Your task to perform on an android device: Show me popular games on the Play Store Image 0: 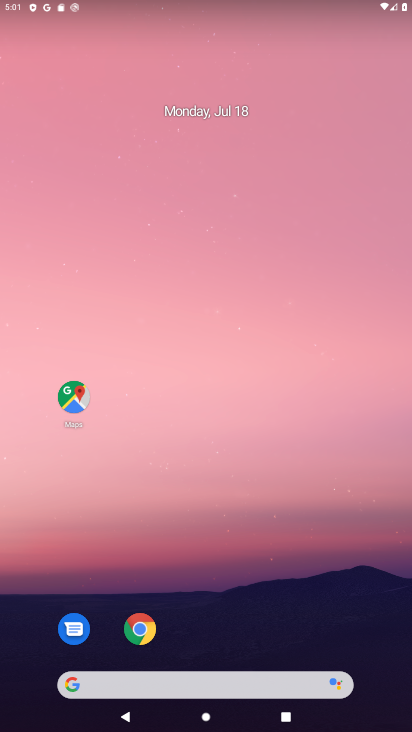
Step 0: drag from (341, 645) to (324, 38)
Your task to perform on an android device: Show me popular games on the Play Store Image 1: 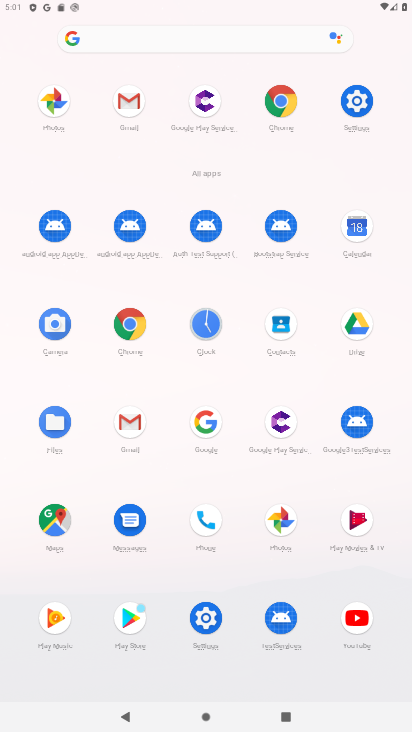
Step 1: click (130, 621)
Your task to perform on an android device: Show me popular games on the Play Store Image 2: 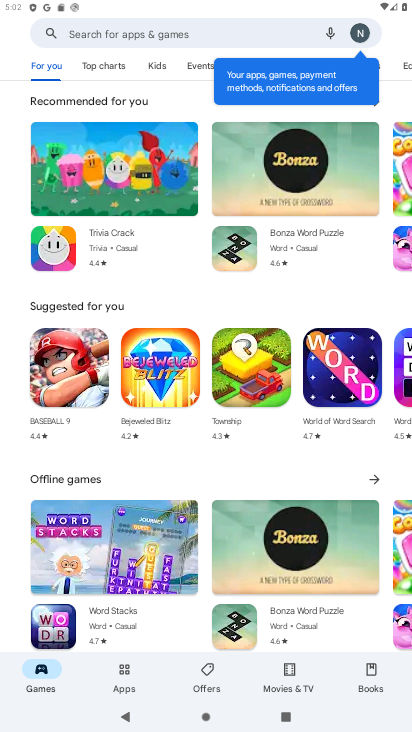
Step 2: drag from (215, 479) to (256, 85)
Your task to perform on an android device: Show me popular games on the Play Store Image 3: 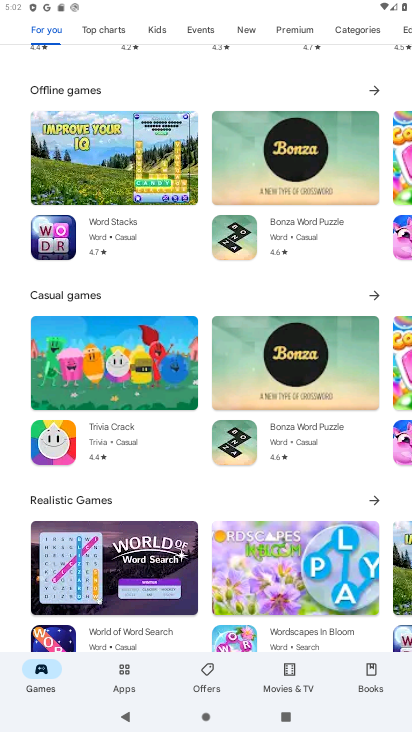
Step 3: drag from (198, 506) to (287, 37)
Your task to perform on an android device: Show me popular games on the Play Store Image 4: 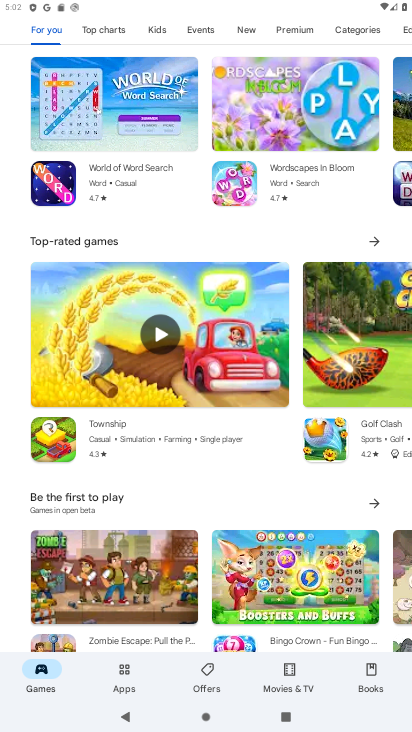
Step 4: drag from (246, 487) to (283, 45)
Your task to perform on an android device: Show me popular games on the Play Store Image 5: 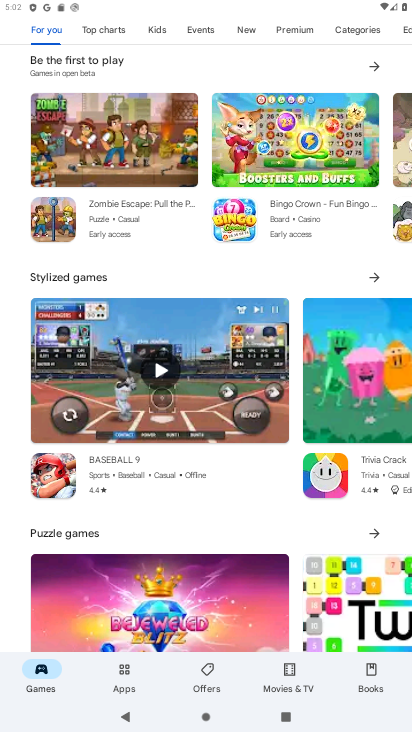
Step 5: drag from (239, 482) to (295, 3)
Your task to perform on an android device: Show me popular games on the Play Store Image 6: 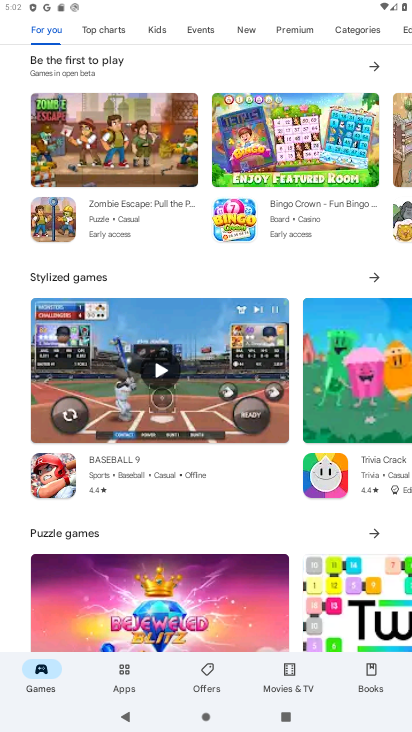
Step 6: drag from (283, 527) to (304, 176)
Your task to perform on an android device: Show me popular games on the Play Store Image 7: 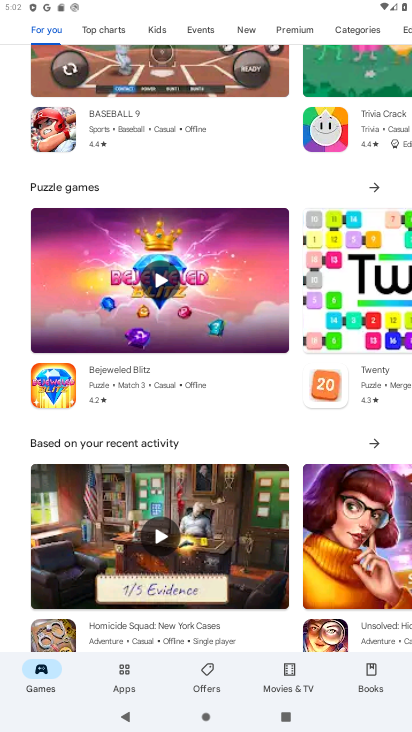
Step 7: drag from (258, 457) to (307, 80)
Your task to perform on an android device: Show me popular games on the Play Store Image 8: 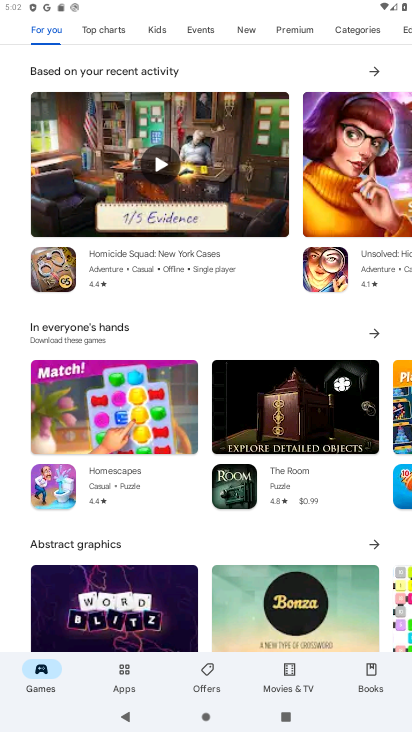
Step 8: drag from (195, 550) to (277, 114)
Your task to perform on an android device: Show me popular games on the Play Store Image 9: 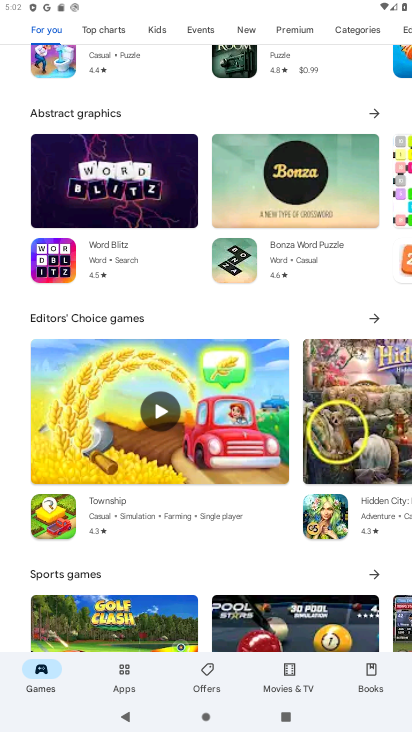
Step 9: drag from (265, 562) to (301, 34)
Your task to perform on an android device: Show me popular games on the Play Store Image 10: 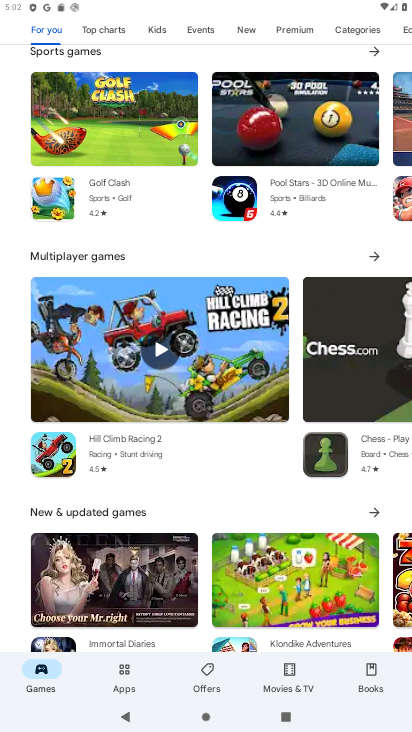
Step 10: drag from (207, 609) to (258, 85)
Your task to perform on an android device: Show me popular games on the Play Store Image 11: 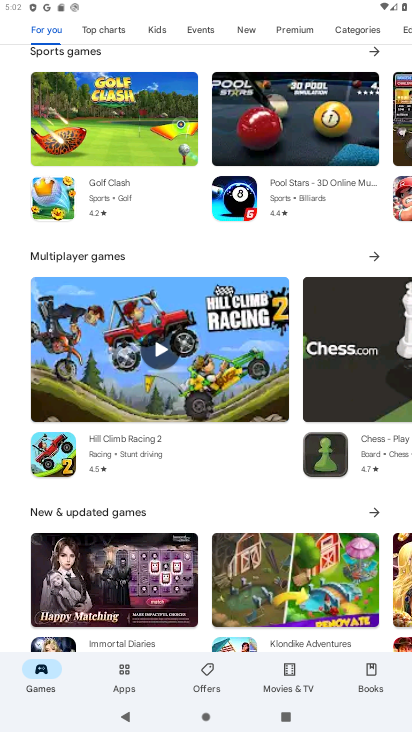
Step 11: drag from (270, 472) to (154, 0)
Your task to perform on an android device: Show me popular games on the Play Store Image 12: 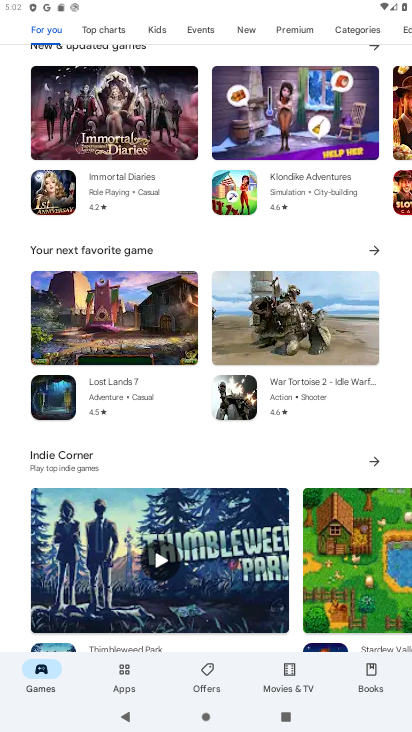
Step 12: drag from (294, 470) to (177, 3)
Your task to perform on an android device: Show me popular games on the Play Store Image 13: 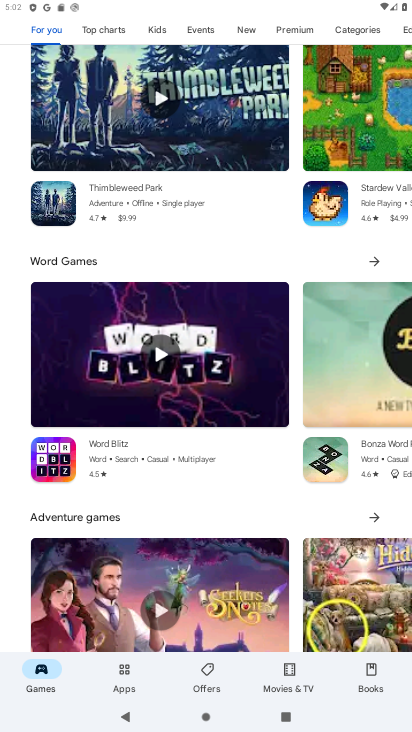
Step 13: drag from (267, 524) to (295, 57)
Your task to perform on an android device: Show me popular games on the Play Store Image 14: 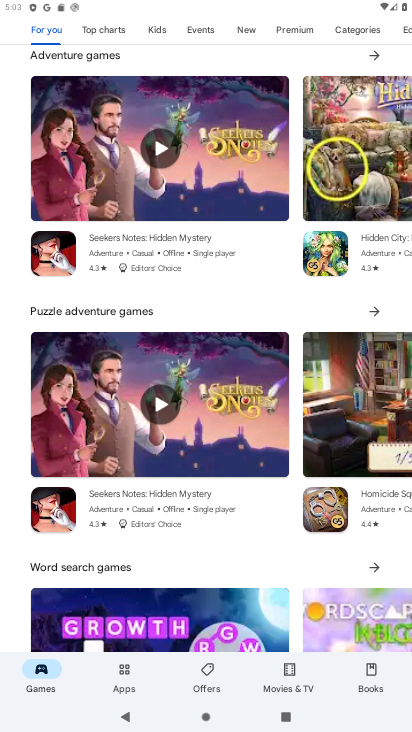
Step 14: drag from (279, 567) to (319, 157)
Your task to perform on an android device: Show me popular games on the Play Store Image 15: 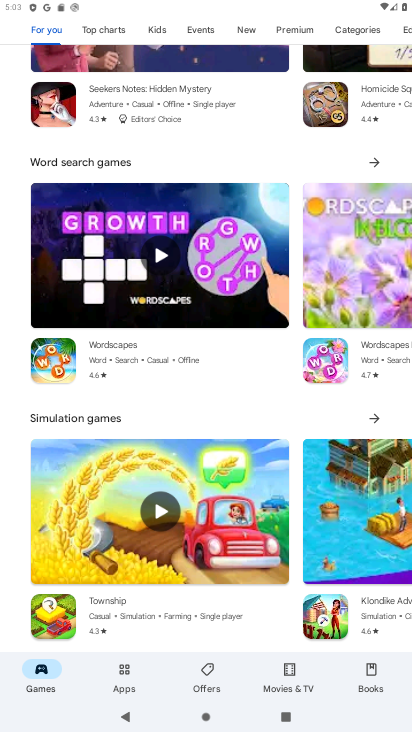
Step 15: drag from (268, 631) to (317, 168)
Your task to perform on an android device: Show me popular games on the Play Store Image 16: 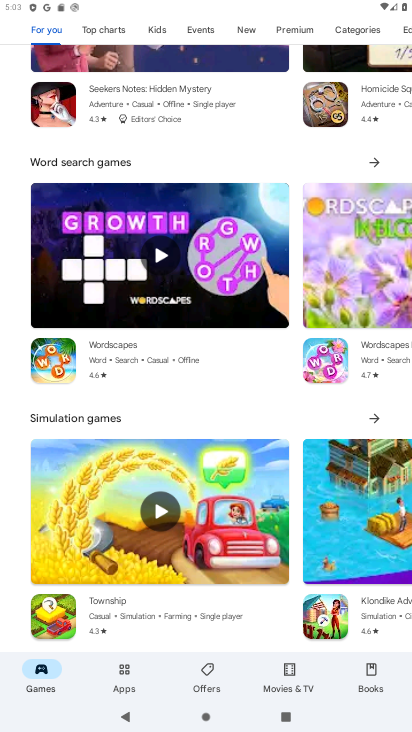
Step 16: drag from (292, 413) to (328, 132)
Your task to perform on an android device: Show me popular games on the Play Store Image 17: 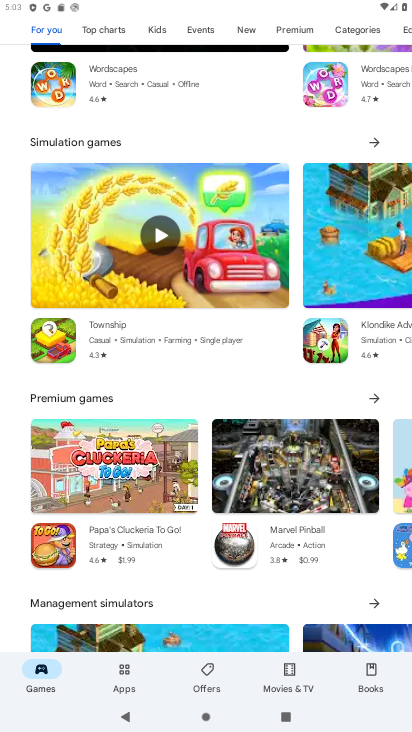
Step 17: drag from (289, 611) to (325, 220)
Your task to perform on an android device: Show me popular games on the Play Store Image 18: 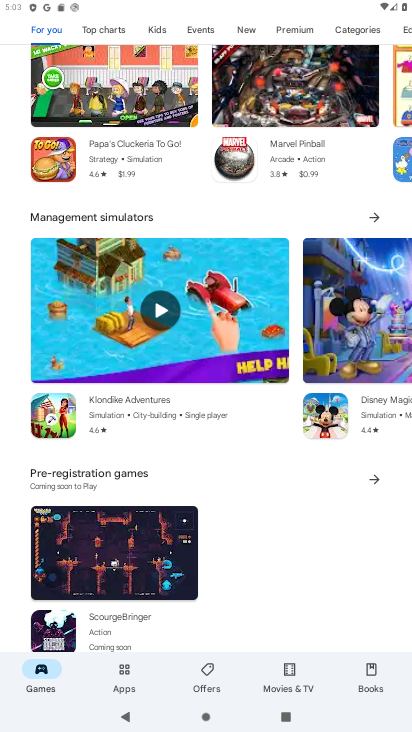
Step 18: drag from (284, 603) to (305, 226)
Your task to perform on an android device: Show me popular games on the Play Store Image 19: 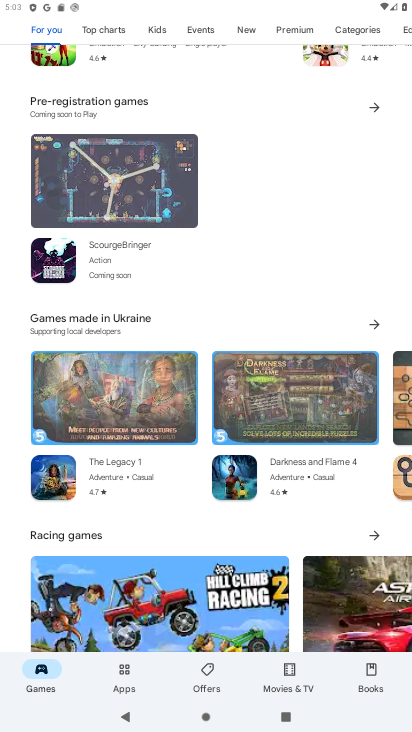
Step 19: drag from (307, 530) to (375, 130)
Your task to perform on an android device: Show me popular games on the Play Store Image 20: 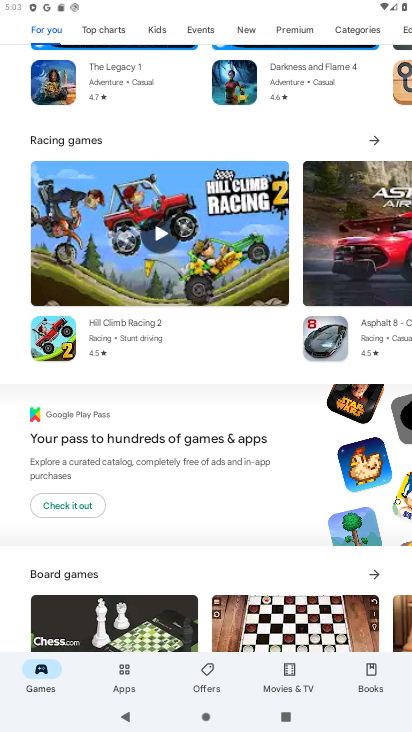
Step 20: drag from (272, 599) to (331, 146)
Your task to perform on an android device: Show me popular games on the Play Store Image 21: 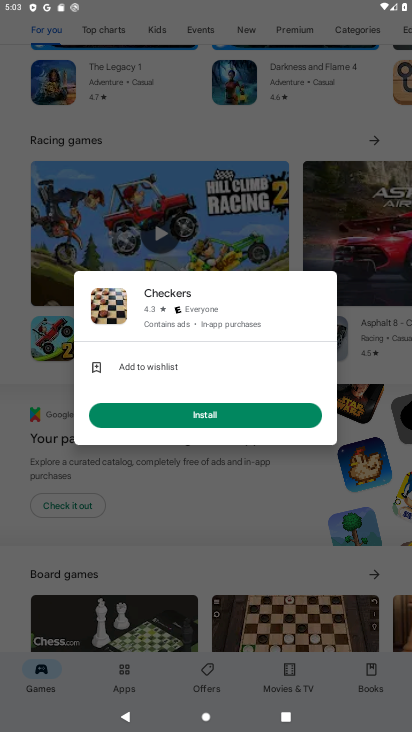
Step 21: click (282, 187)
Your task to perform on an android device: Show me popular games on the Play Store Image 22: 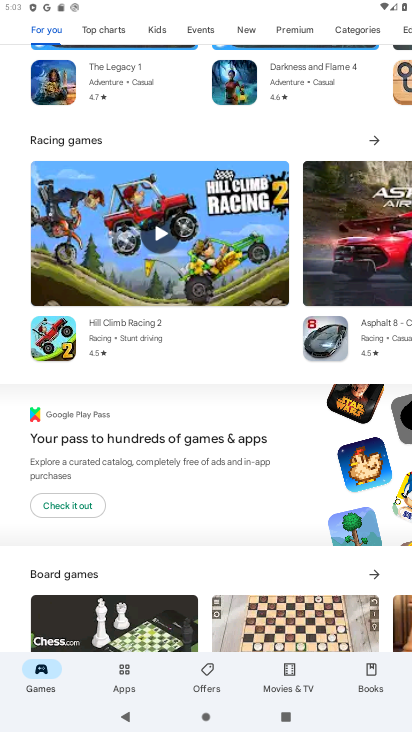
Step 22: task complete